Your task to perform on an android device: empty trash in google photos Image 0: 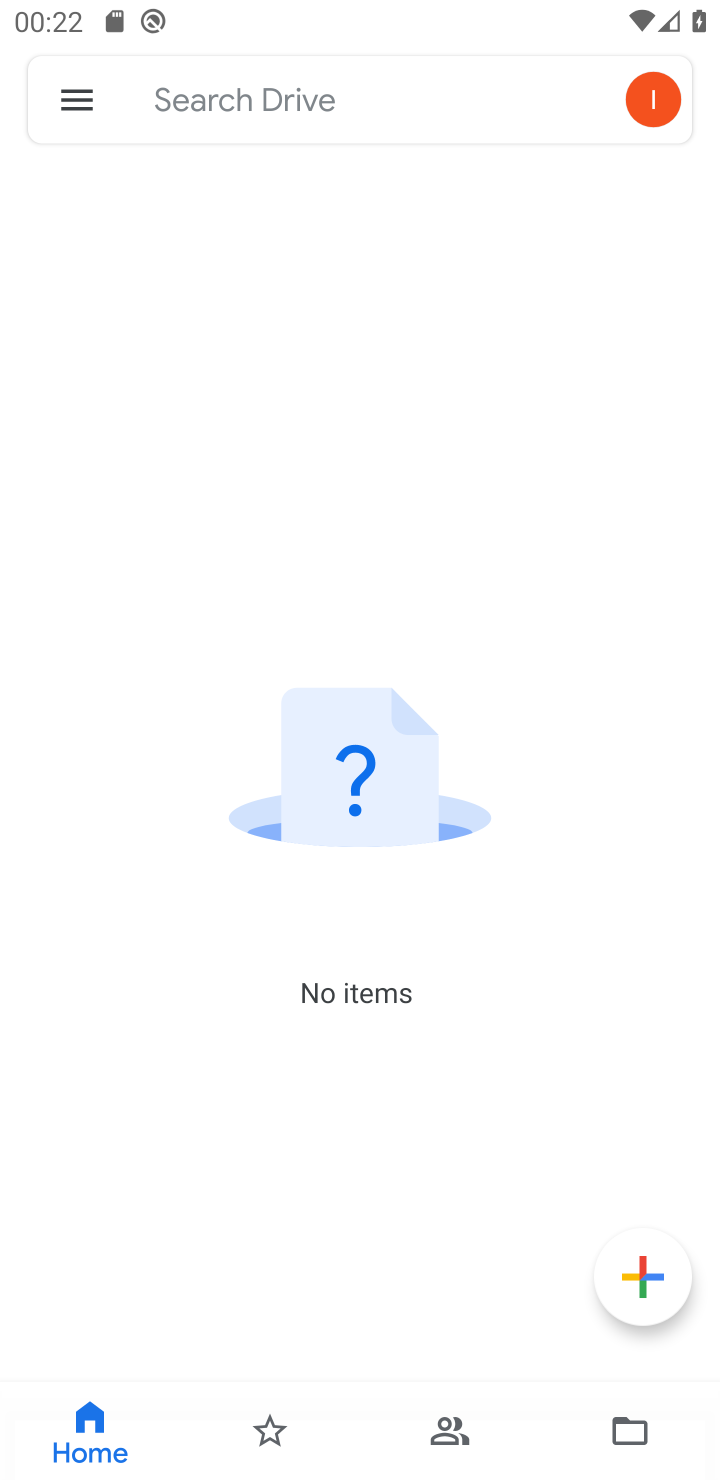
Step 0: press home button
Your task to perform on an android device: empty trash in google photos Image 1: 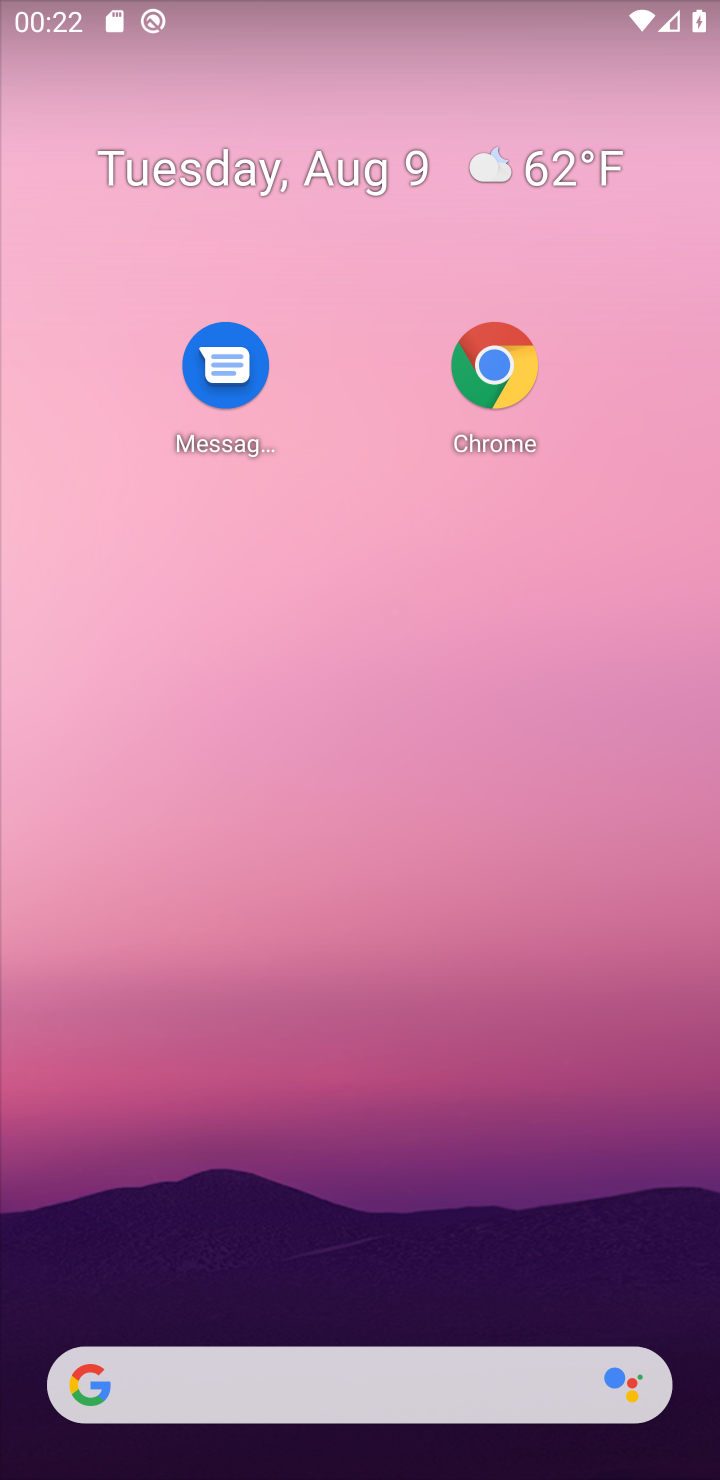
Step 1: drag from (353, 1306) to (347, 394)
Your task to perform on an android device: empty trash in google photos Image 2: 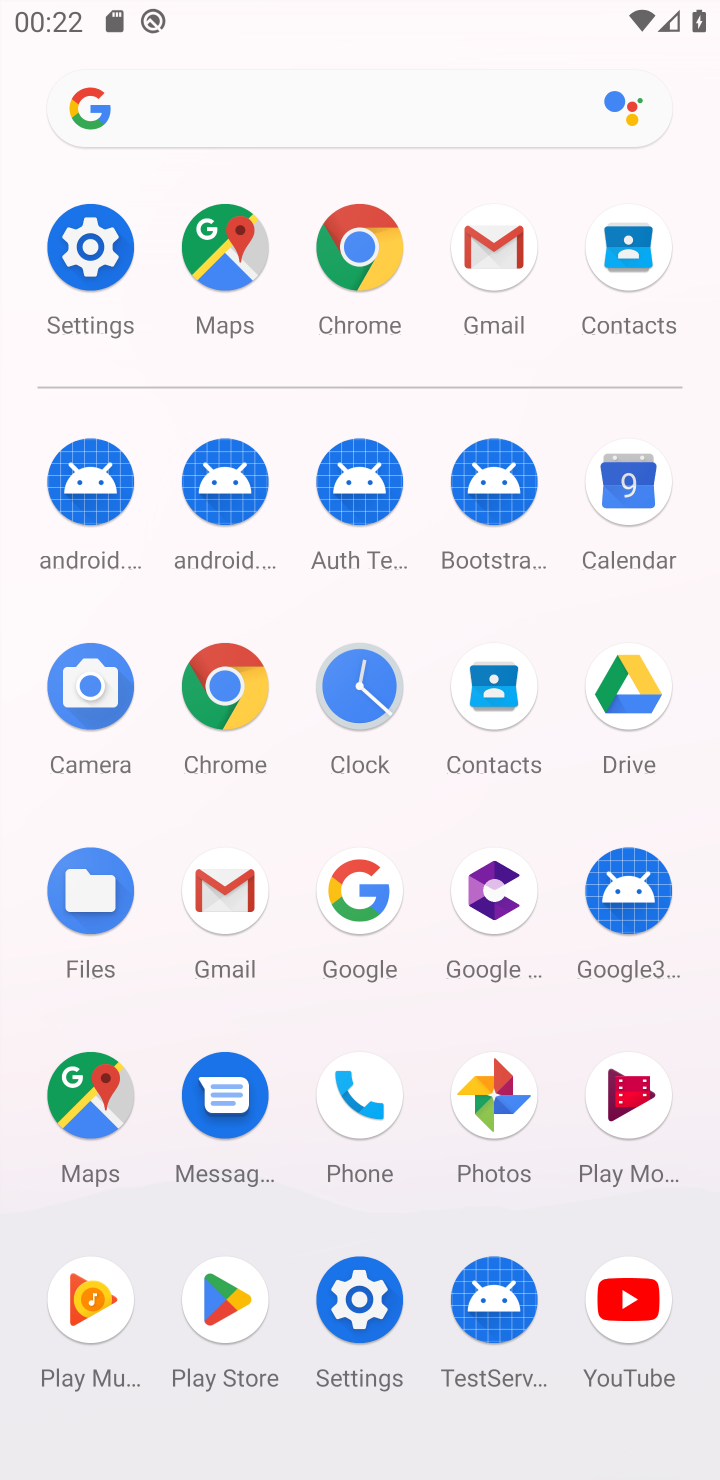
Step 2: click (487, 1100)
Your task to perform on an android device: empty trash in google photos Image 3: 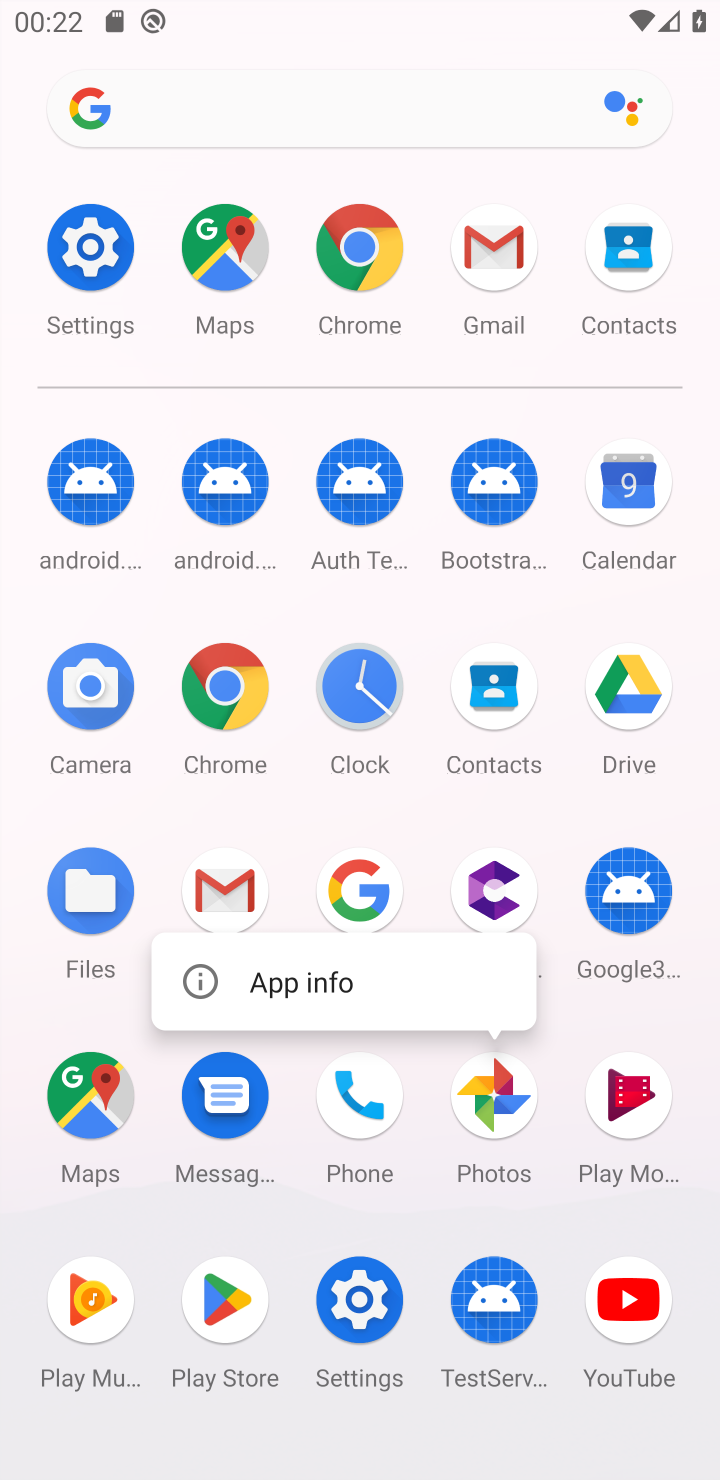
Step 3: click (443, 1056)
Your task to perform on an android device: empty trash in google photos Image 4: 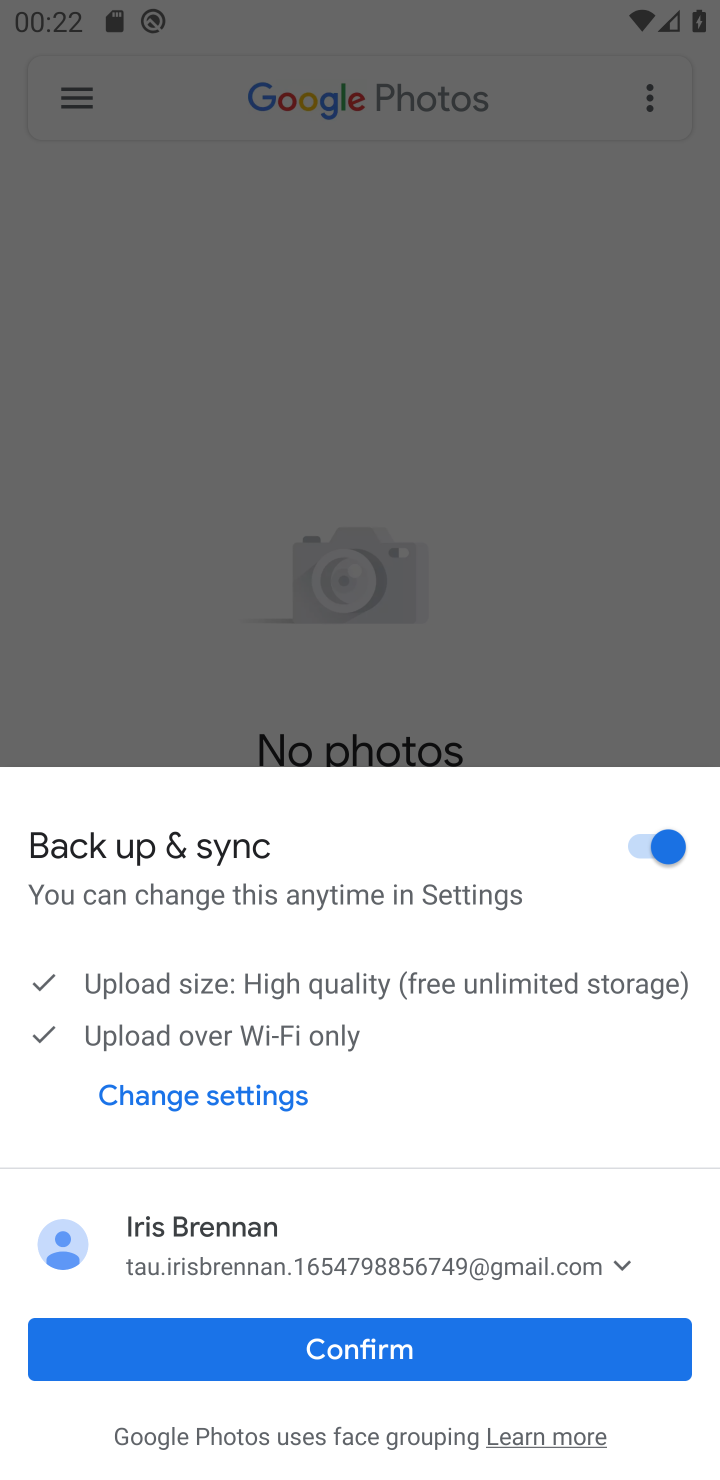
Step 4: click (339, 1350)
Your task to perform on an android device: empty trash in google photos Image 5: 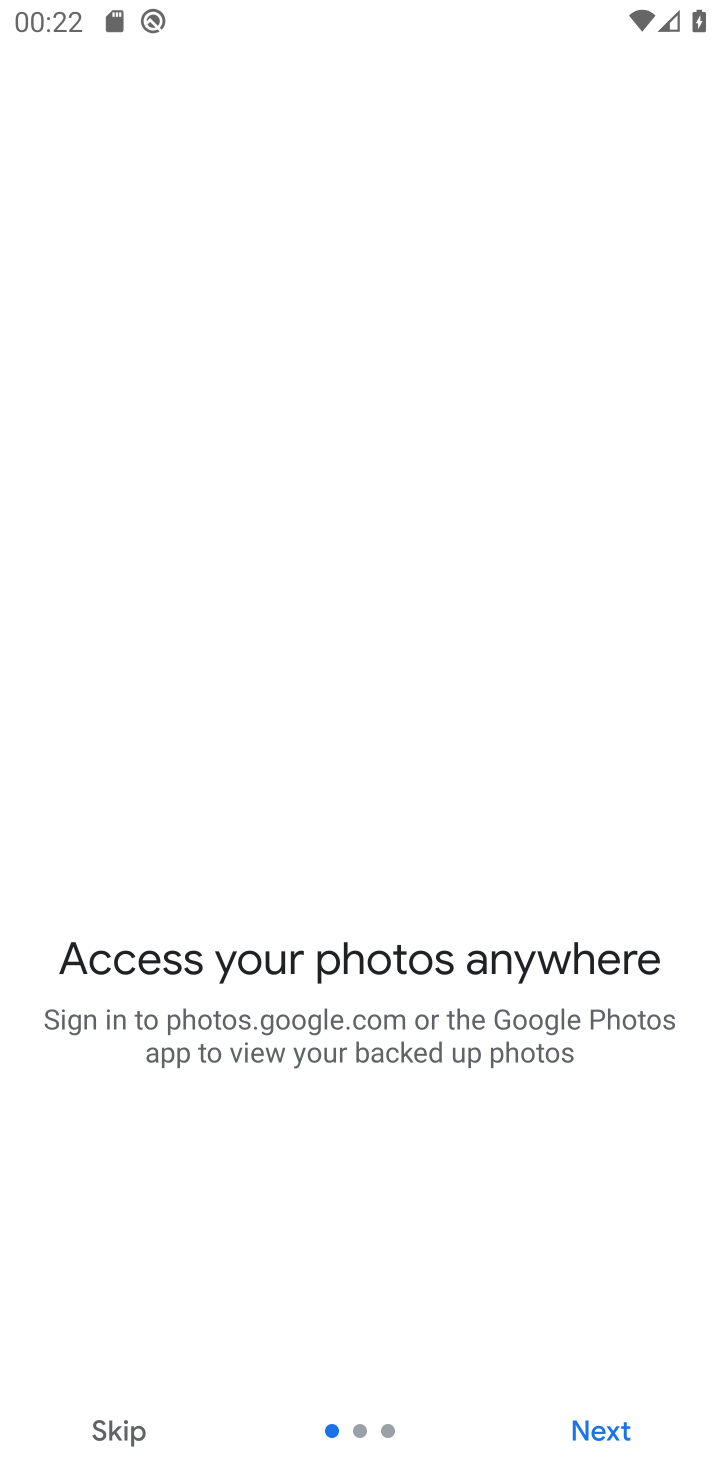
Step 5: click (561, 1417)
Your task to perform on an android device: empty trash in google photos Image 6: 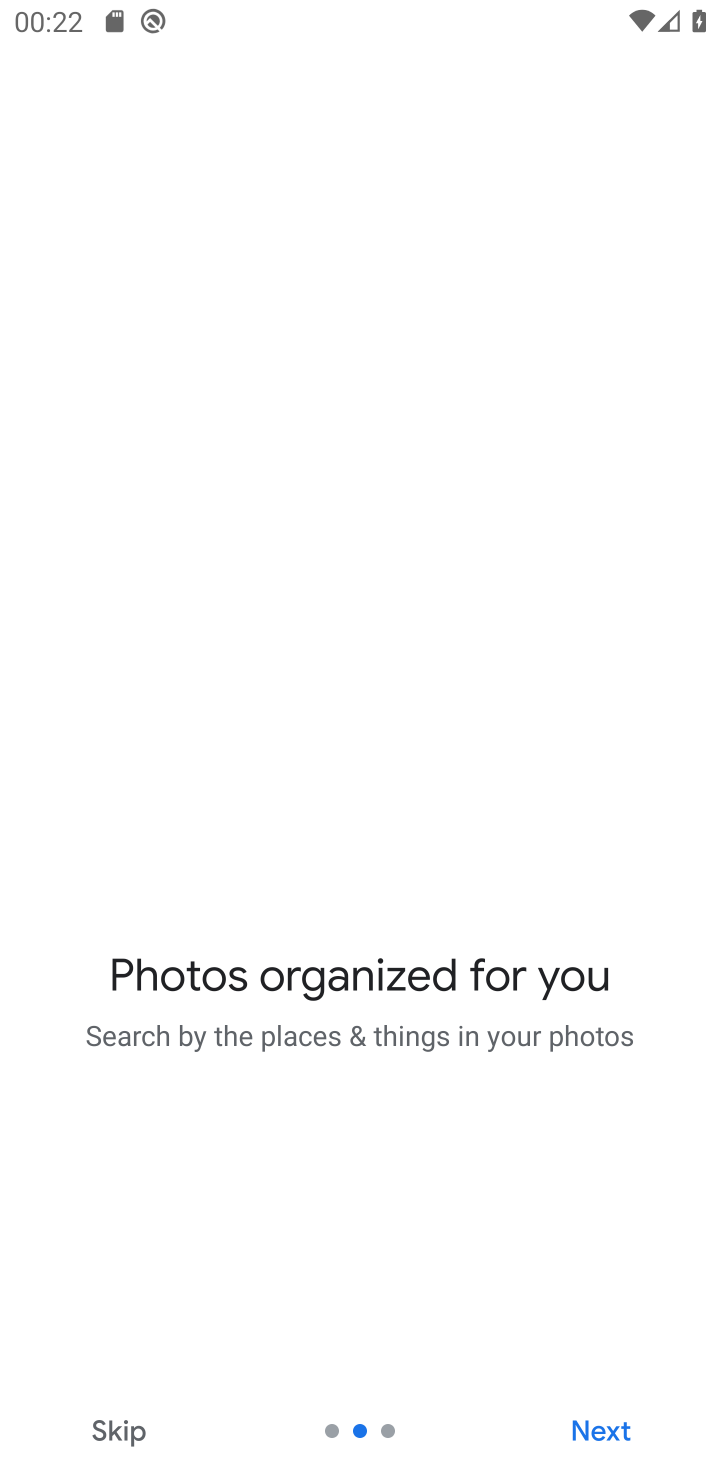
Step 6: click (582, 1414)
Your task to perform on an android device: empty trash in google photos Image 7: 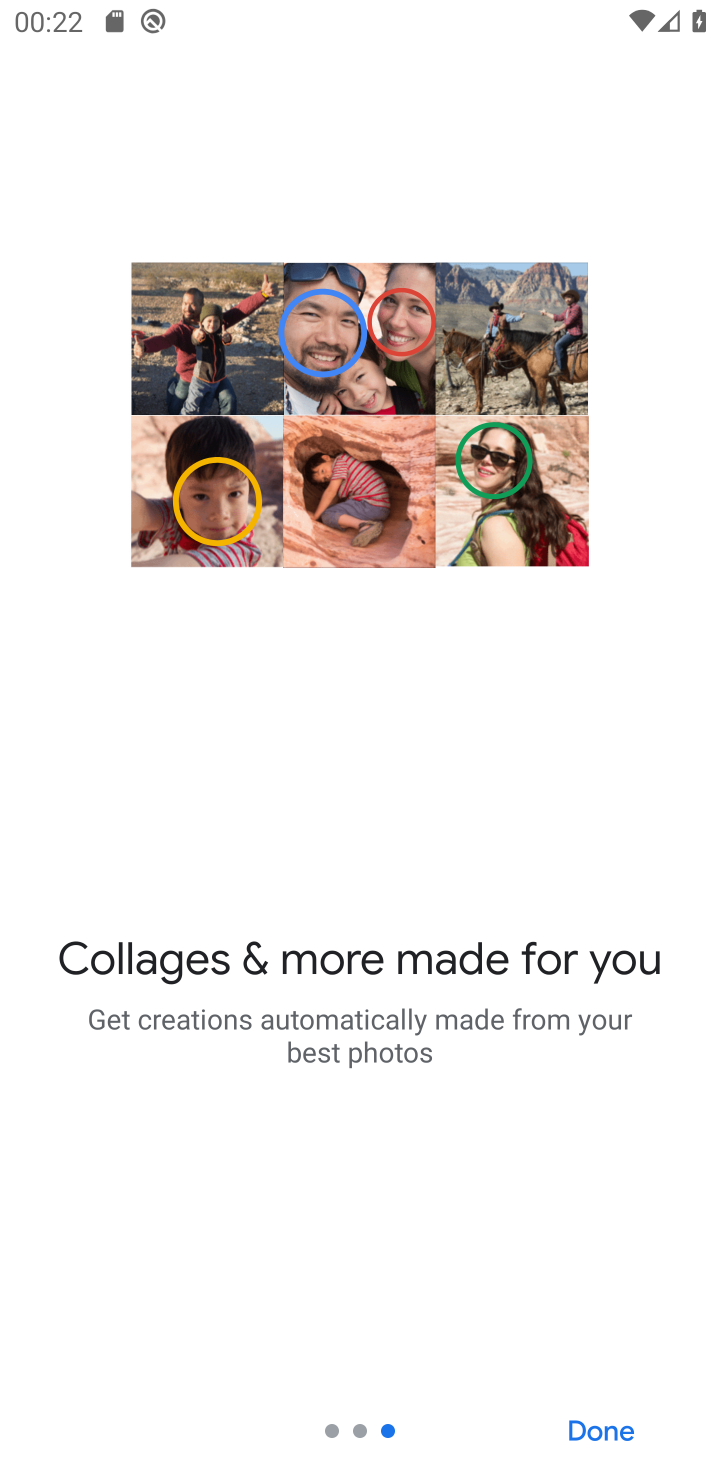
Step 7: click (594, 1429)
Your task to perform on an android device: empty trash in google photos Image 8: 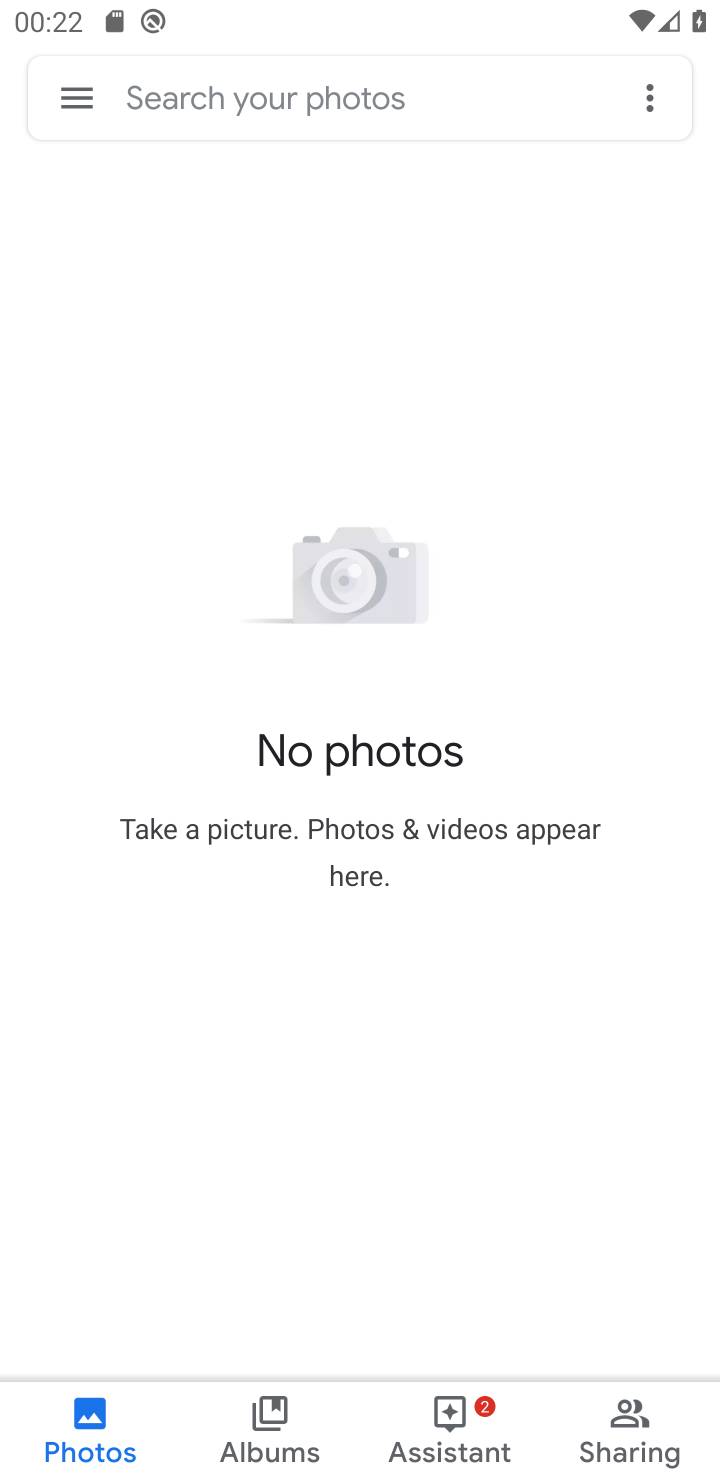
Step 8: click (66, 106)
Your task to perform on an android device: empty trash in google photos Image 9: 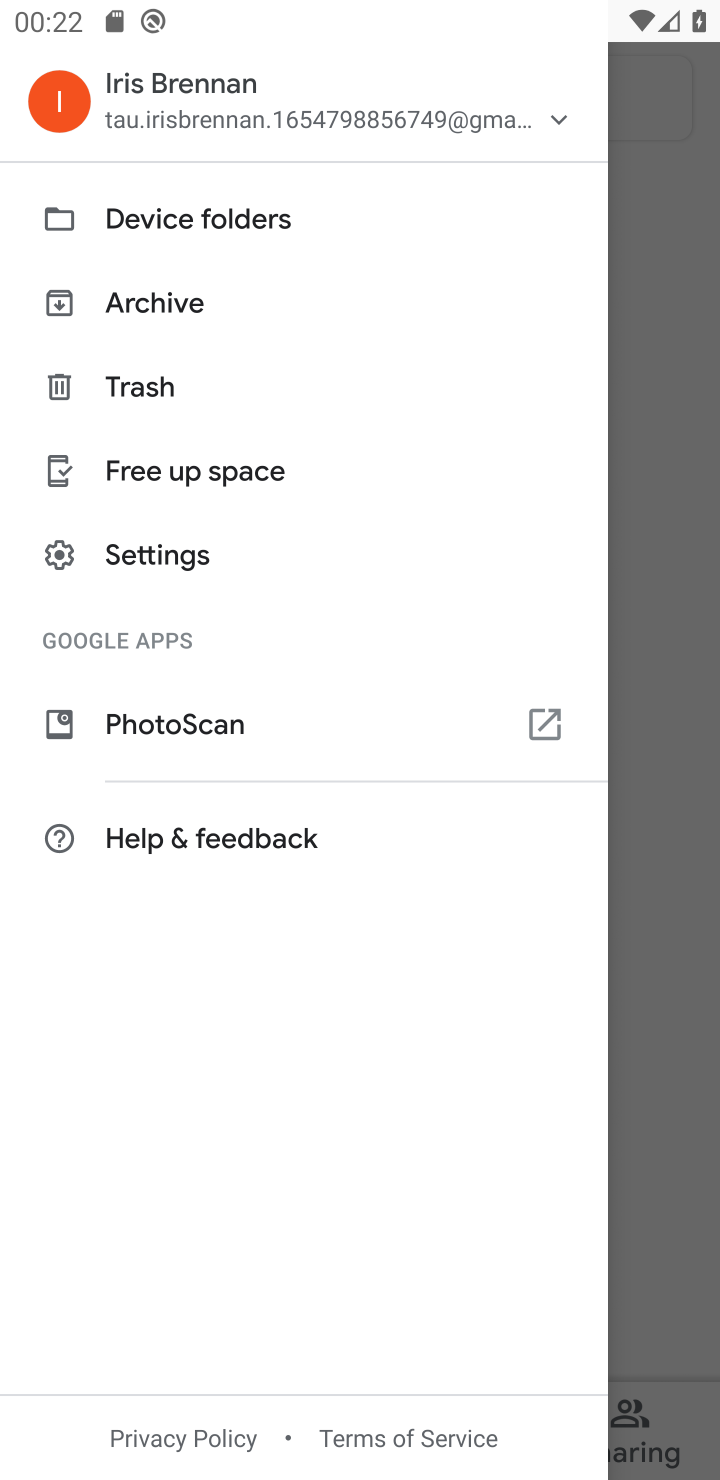
Step 9: click (142, 385)
Your task to perform on an android device: empty trash in google photos Image 10: 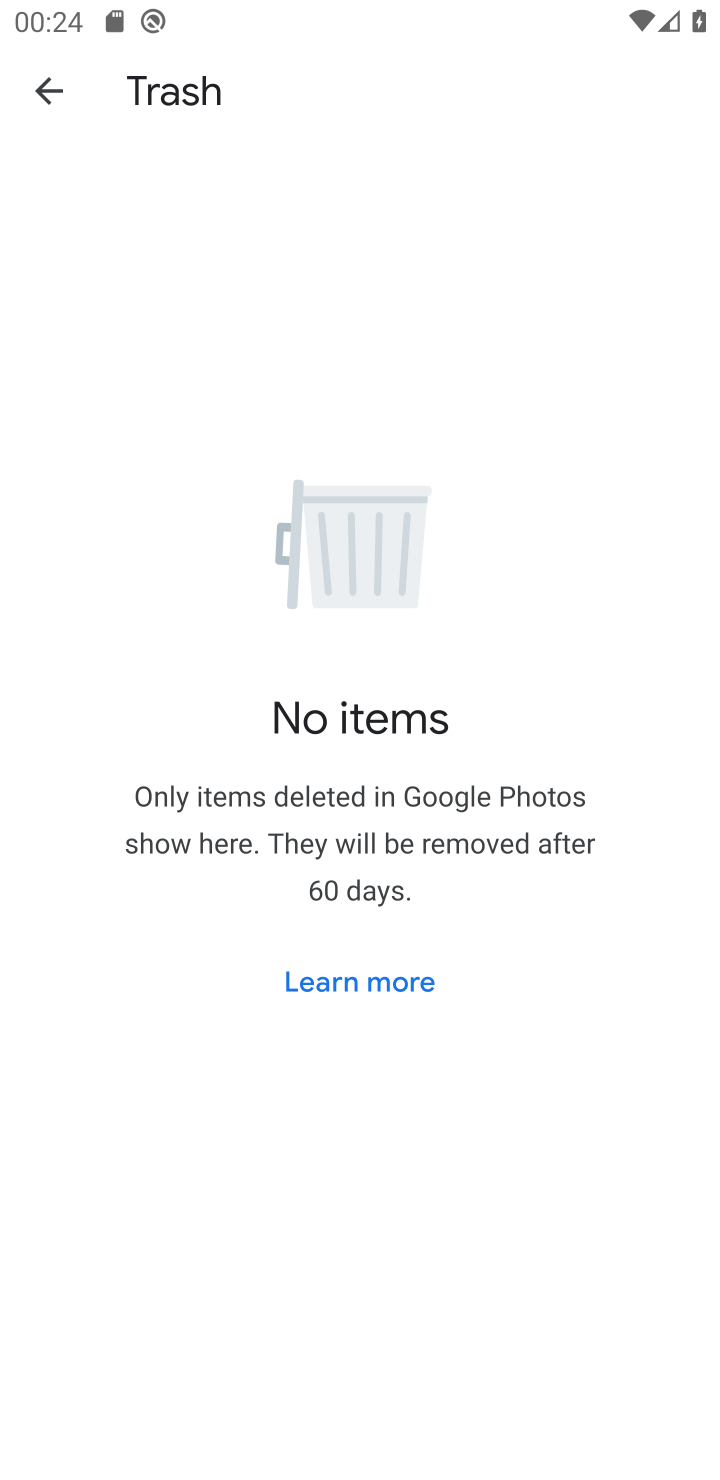
Step 10: task complete